Your task to perform on an android device: Go to calendar. Show me events next week Image 0: 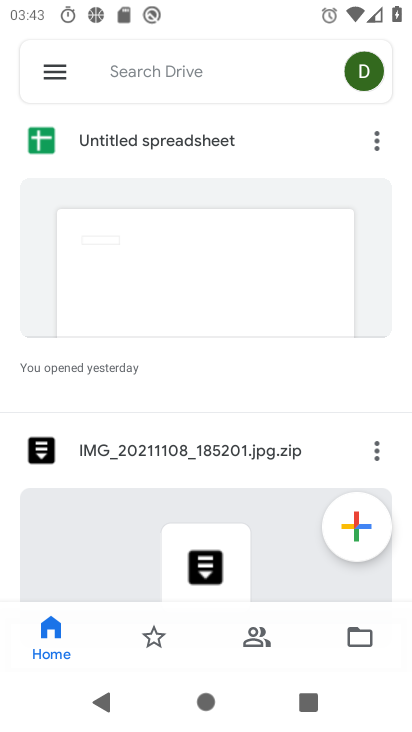
Step 0: press back button
Your task to perform on an android device: Go to calendar. Show me events next week Image 1: 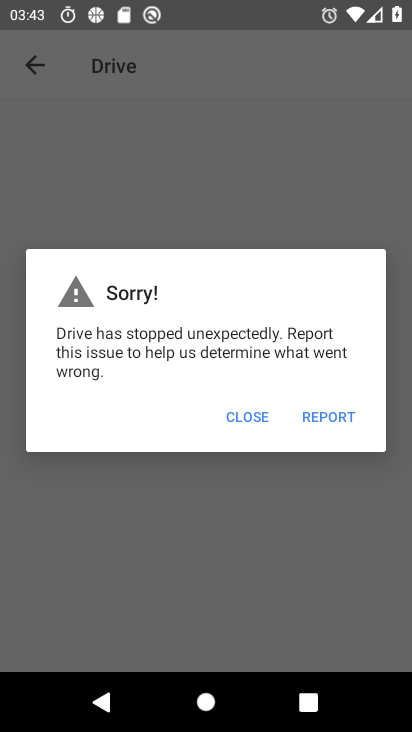
Step 1: press back button
Your task to perform on an android device: Go to calendar. Show me events next week Image 2: 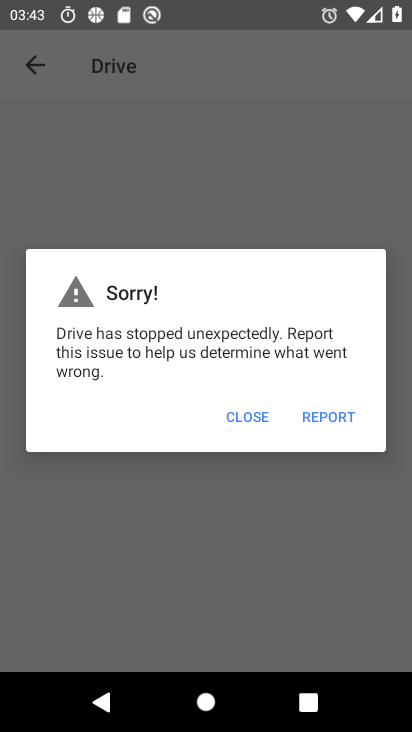
Step 2: press home button
Your task to perform on an android device: Go to calendar. Show me events next week Image 3: 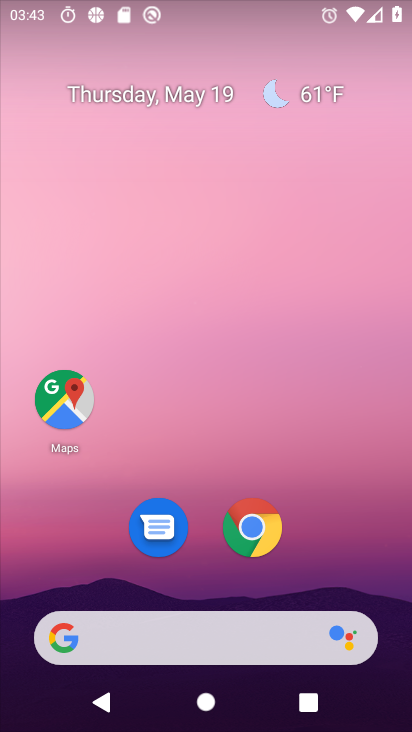
Step 3: drag from (175, 578) to (257, 107)
Your task to perform on an android device: Go to calendar. Show me events next week Image 4: 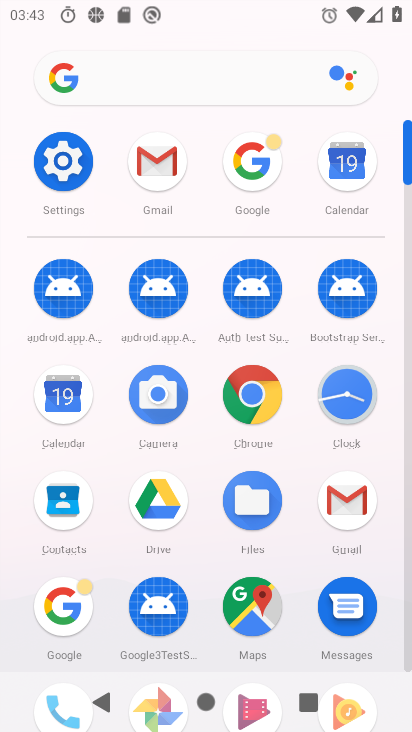
Step 4: click (55, 395)
Your task to perform on an android device: Go to calendar. Show me events next week Image 5: 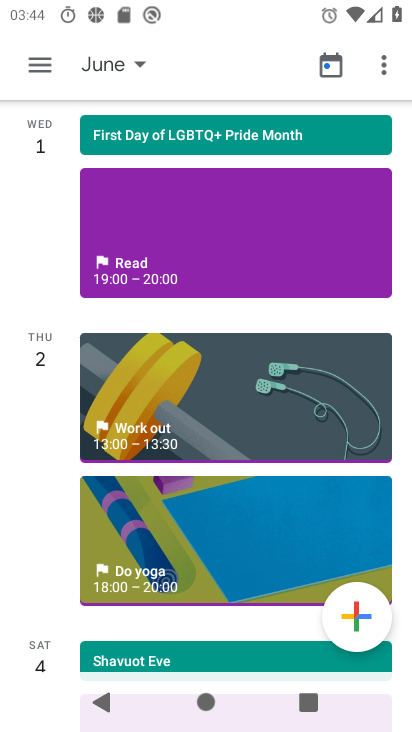
Step 5: click (125, 65)
Your task to perform on an android device: Go to calendar. Show me events next week Image 6: 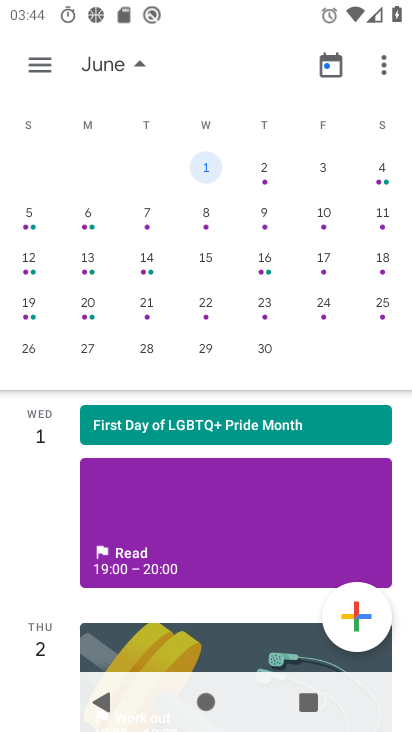
Step 6: drag from (128, 263) to (394, 246)
Your task to perform on an android device: Go to calendar. Show me events next week Image 7: 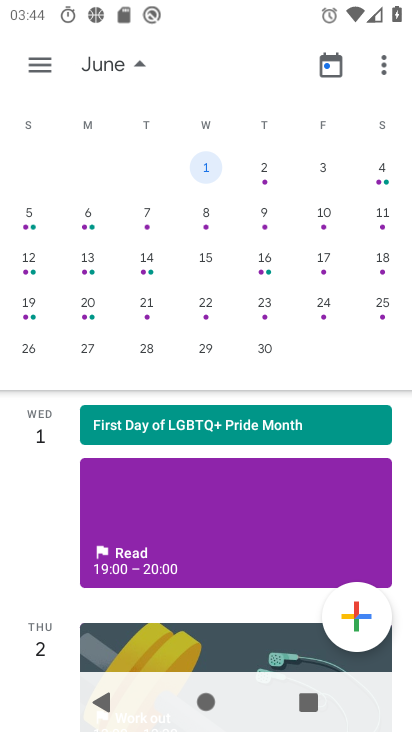
Step 7: drag from (11, 270) to (338, 224)
Your task to perform on an android device: Go to calendar. Show me events next week Image 8: 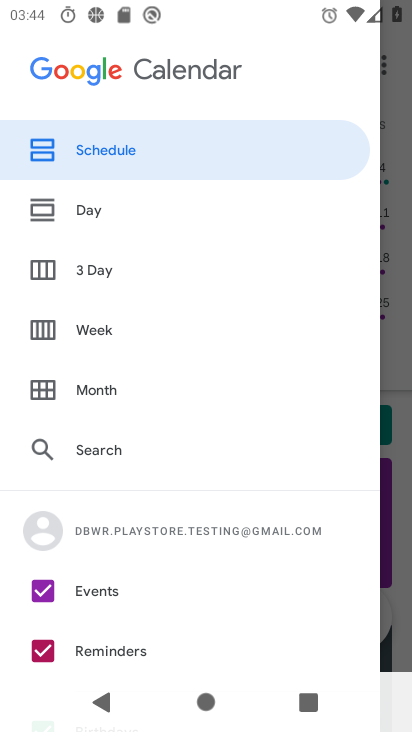
Step 8: drag from (398, 264) to (151, 245)
Your task to perform on an android device: Go to calendar. Show me events next week Image 9: 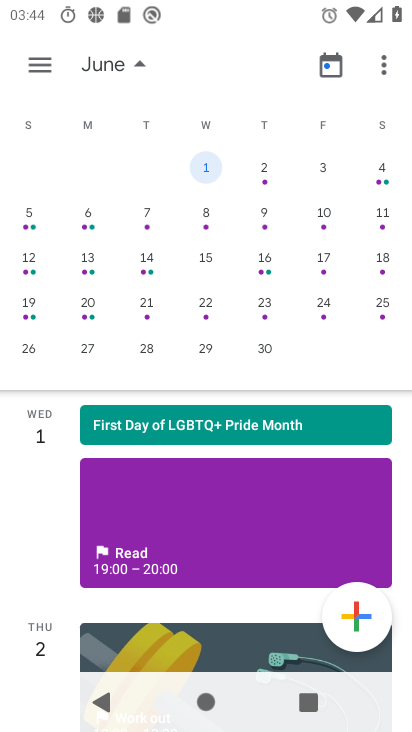
Step 9: drag from (101, 272) to (406, 250)
Your task to perform on an android device: Go to calendar. Show me events next week Image 10: 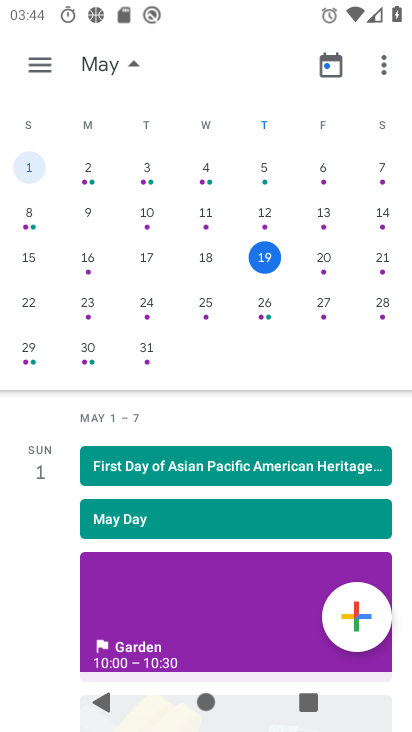
Step 10: click (93, 304)
Your task to perform on an android device: Go to calendar. Show me events next week Image 11: 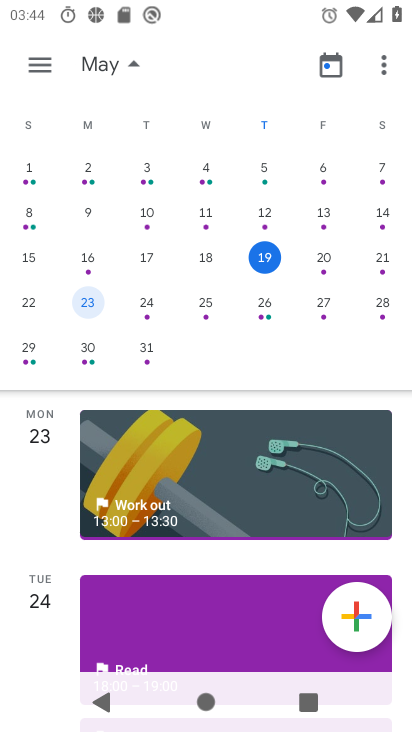
Step 11: drag from (157, 612) to (273, 66)
Your task to perform on an android device: Go to calendar. Show me events next week Image 12: 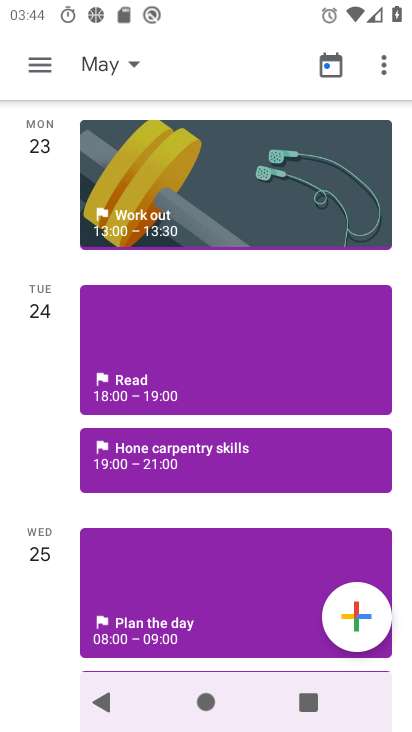
Step 12: drag from (195, 562) to (310, 154)
Your task to perform on an android device: Go to calendar. Show me events next week Image 13: 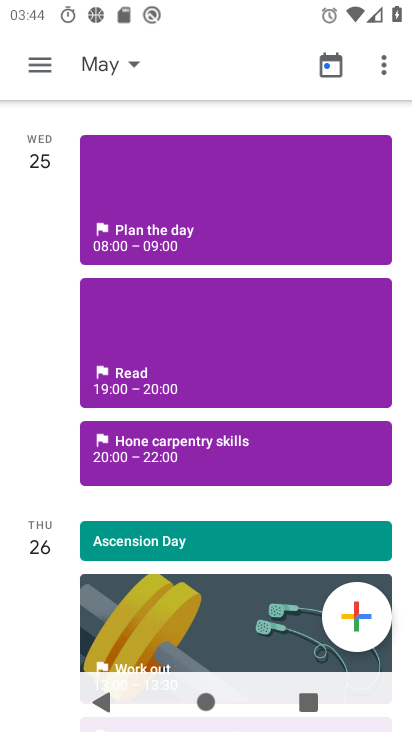
Step 13: click (115, 439)
Your task to perform on an android device: Go to calendar. Show me events next week Image 14: 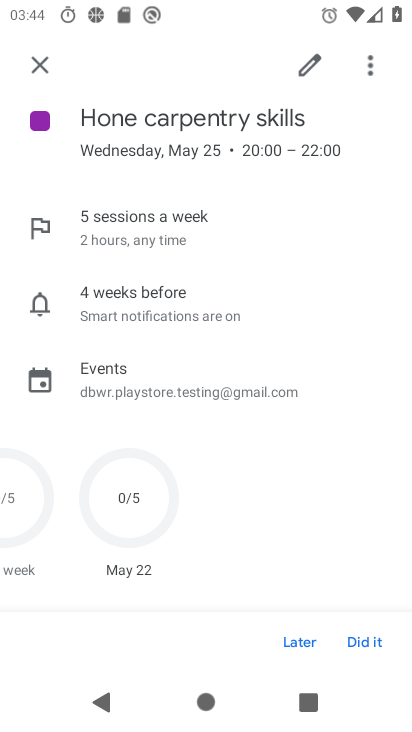
Step 14: task complete